Your task to perform on an android device: remove spam from my inbox in the gmail app Image 0: 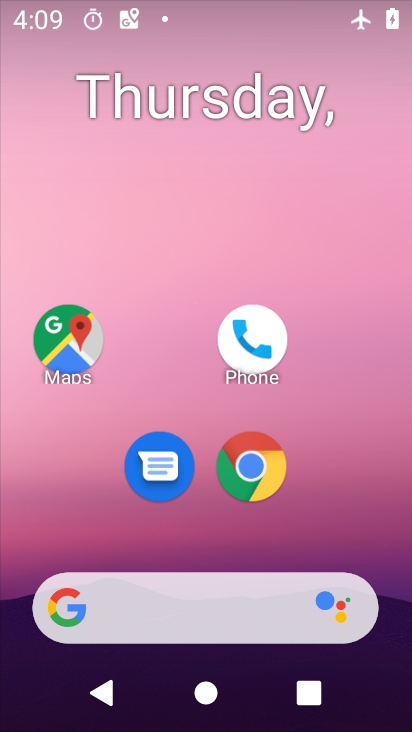
Step 0: drag from (174, 539) to (225, 171)
Your task to perform on an android device: remove spam from my inbox in the gmail app Image 1: 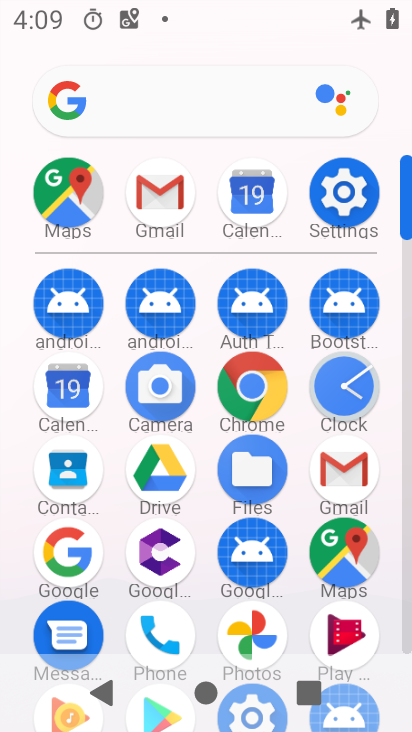
Step 1: click (349, 481)
Your task to perform on an android device: remove spam from my inbox in the gmail app Image 2: 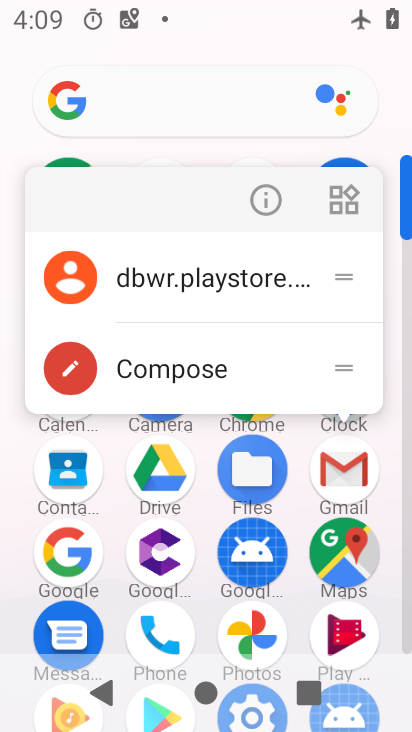
Step 2: click (187, 281)
Your task to perform on an android device: remove spam from my inbox in the gmail app Image 3: 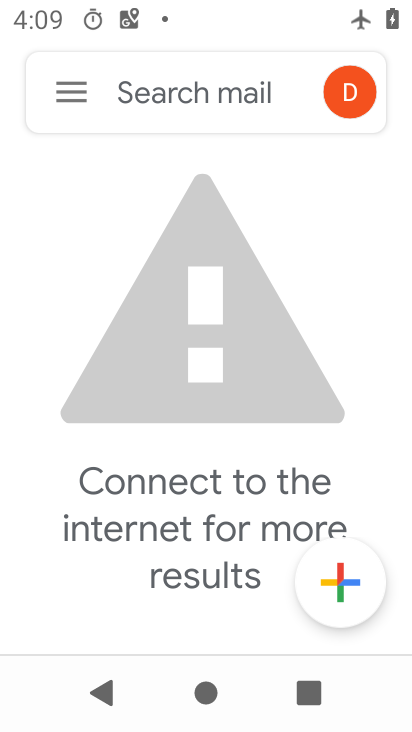
Step 3: click (76, 82)
Your task to perform on an android device: remove spam from my inbox in the gmail app Image 4: 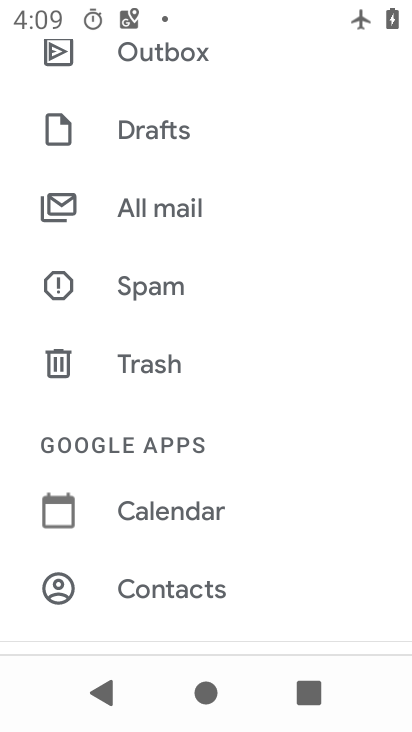
Step 4: click (158, 295)
Your task to perform on an android device: remove spam from my inbox in the gmail app Image 5: 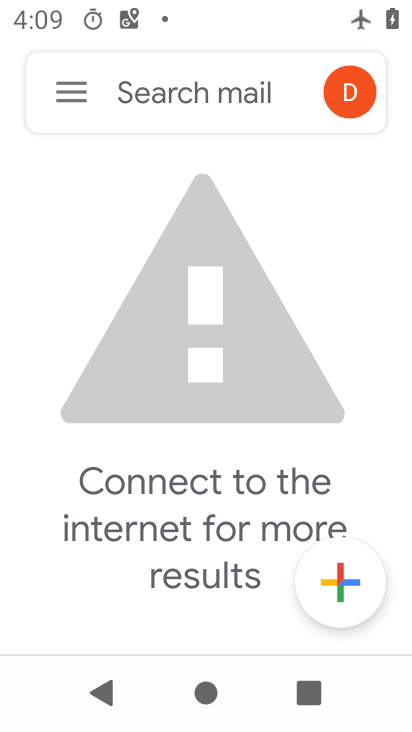
Step 5: drag from (213, 542) to (285, 28)
Your task to perform on an android device: remove spam from my inbox in the gmail app Image 6: 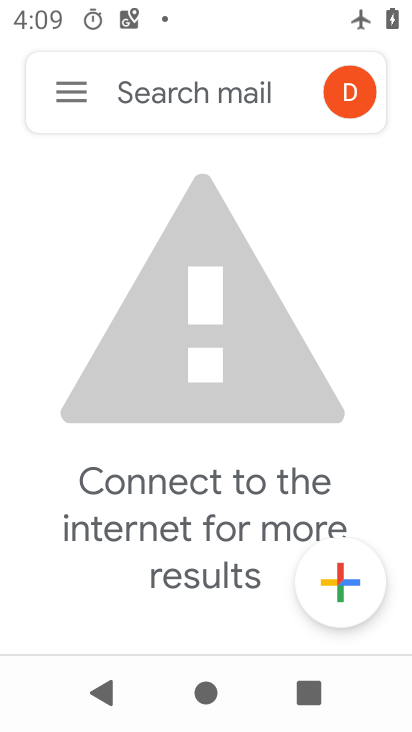
Step 6: click (61, 105)
Your task to perform on an android device: remove spam from my inbox in the gmail app Image 7: 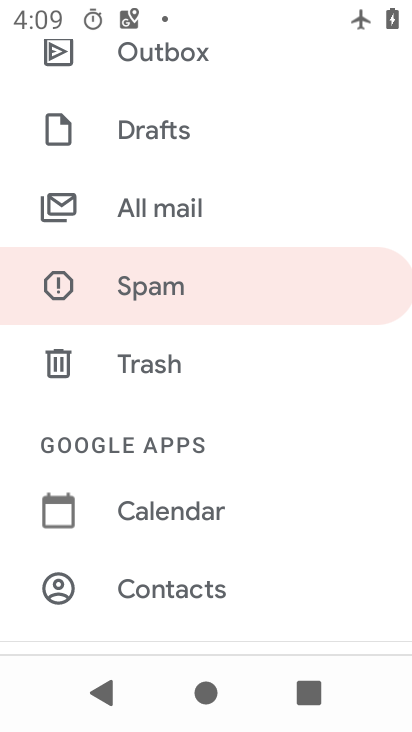
Step 7: click (168, 286)
Your task to perform on an android device: remove spam from my inbox in the gmail app Image 8: 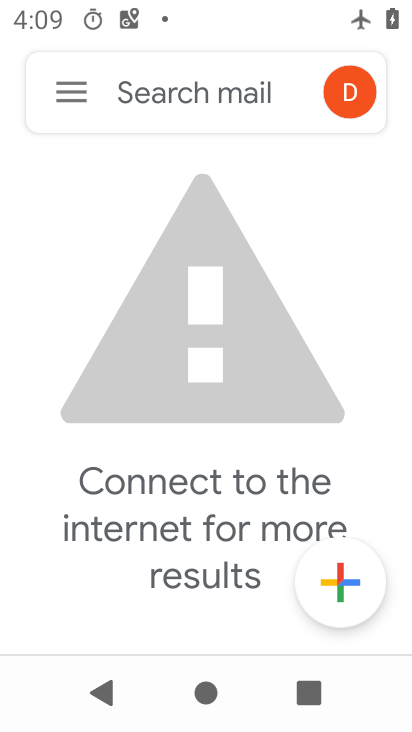
Step 8: task complete